Your task to perform on an android device: open a bookmark in the chrome app Image 0: 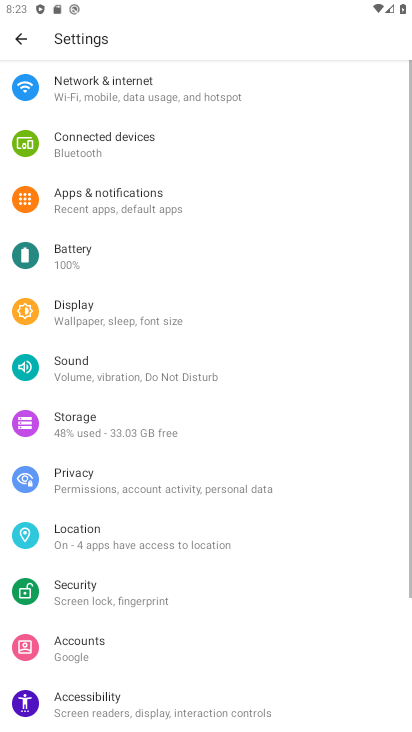
Step 0: press home button
Your task to perform on an android device: open a bookmark in the chrome app Image 1: 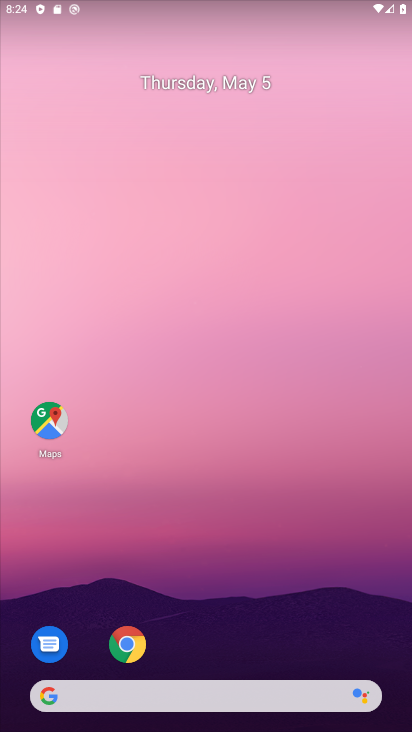
Step 1: drag from (232, 601) to (153, 44)
Your task to perform on an android device: open a bookmark in the chrome app Image 2: 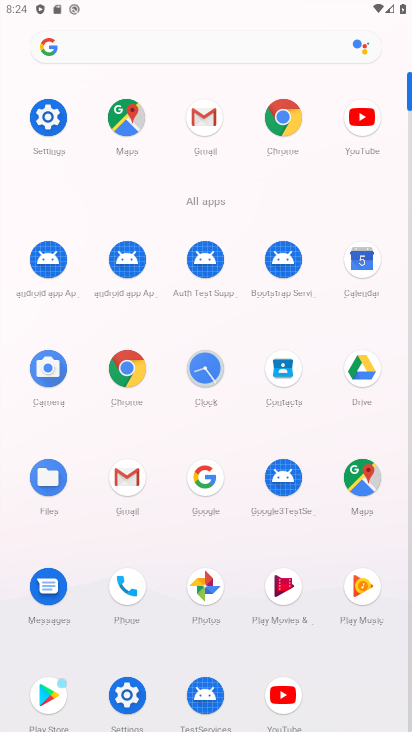
Step 2: click (289, 128)
Your task to perform on an android device: open a bookmark in the chrome app Image 3: 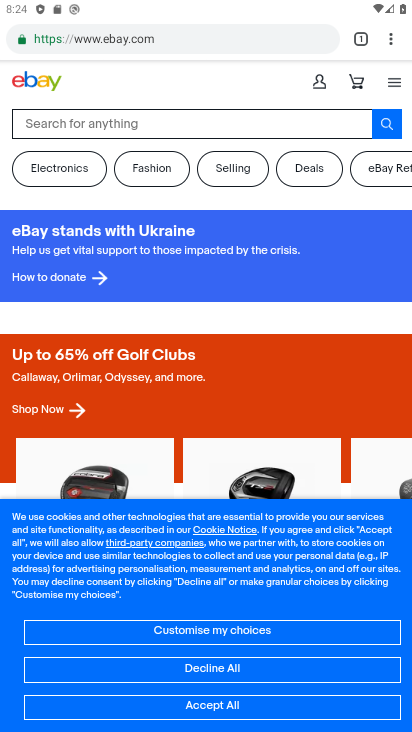
Step 3: task complete